Your task to perform on an android device: What is the recent news? Image 0: 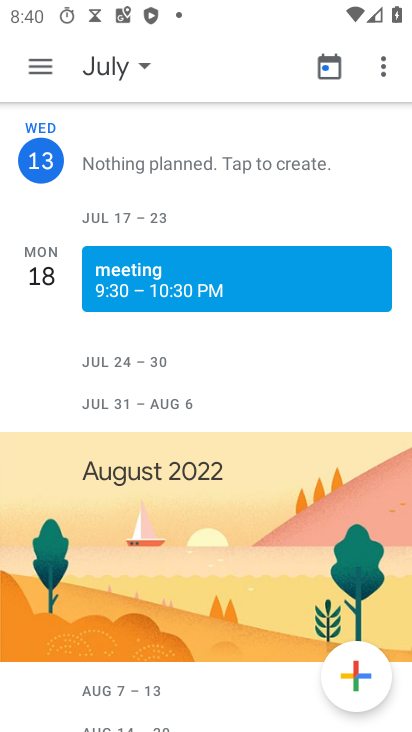
Step 0: press home button
Your task to perform on an android device: What is the recent news? Image 1: 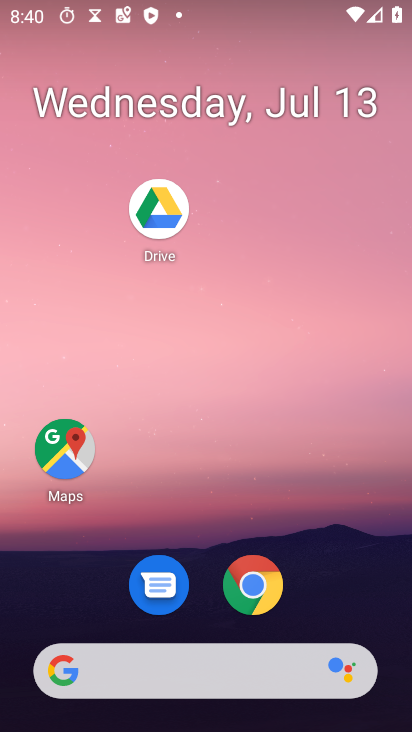
Step 1: click (166, 669)
Your task to perform on an android device: What is the recent news? Image 2: 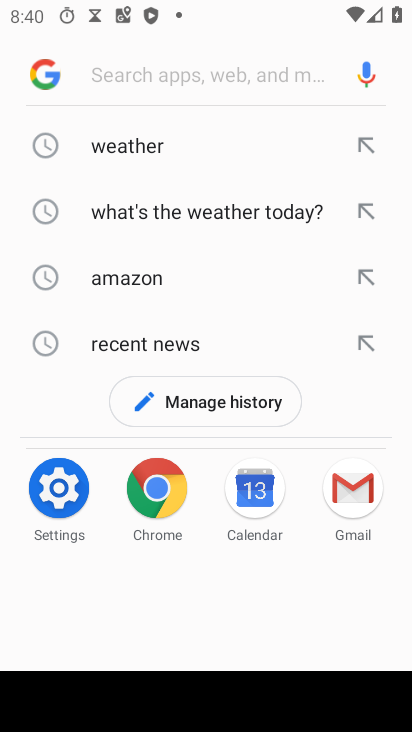
Step 2: click (176, 343)
Your task to perform on an android device: What is the recent news? Image 3: 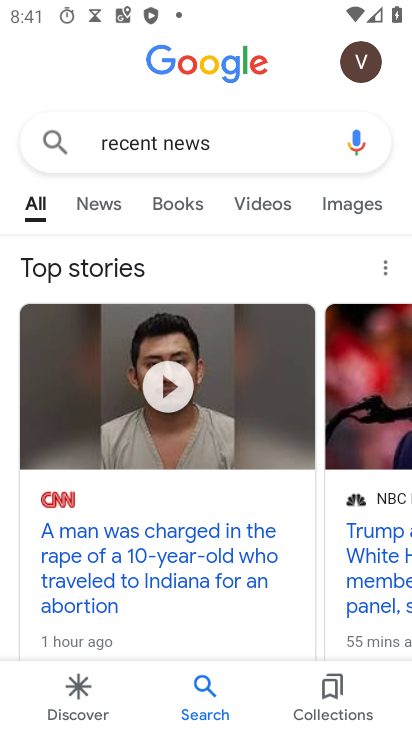
Step 3: click (96, 197)
Your task to perform on an android device: What is the recent news? Image 4: 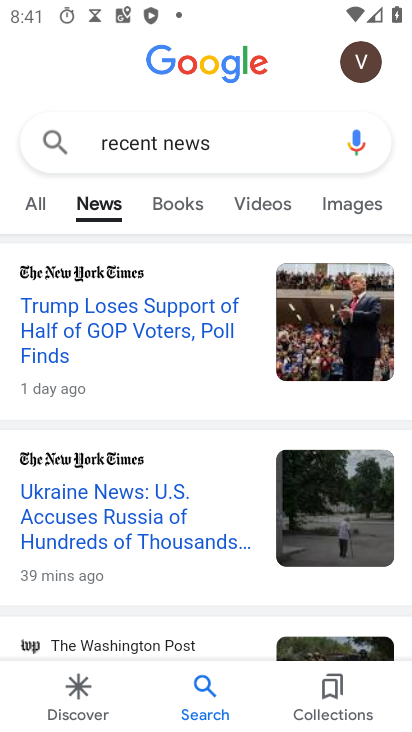
Step 4: task complete